Your task to perform on an android device: Set the phone to "Do not disturb". Image 0: 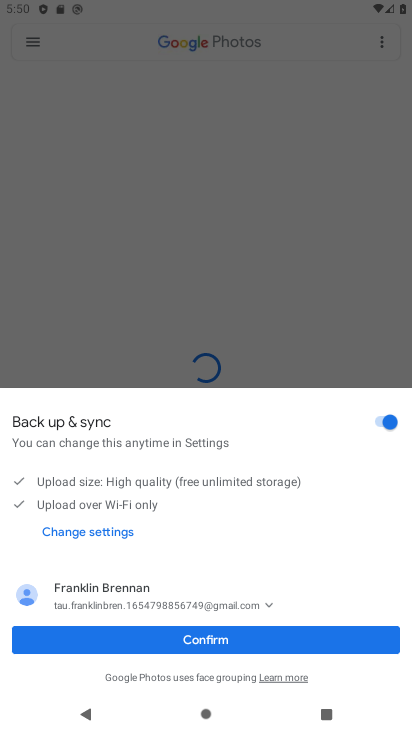
Step 0: press home button
Your task to perform on an android device: Set the phone to "Do not disturb". Image 1: 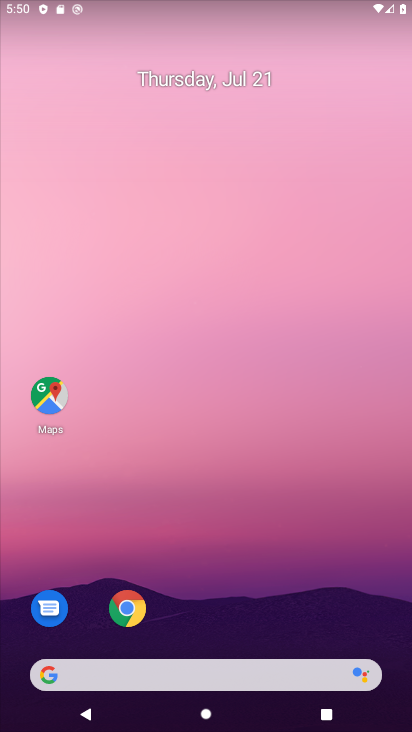
Step 1: drag from (140, 669) to (287, 75)
Your task to perform on an android device: Set the phone to "Do not disturb". Image 2: 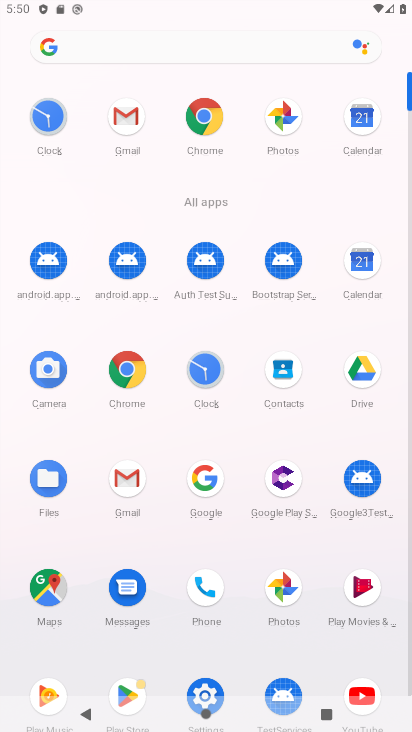
Step 2: click (206, 695)
Your task to perform on an android device: Set the phone to "Do not disturb". Image 3: 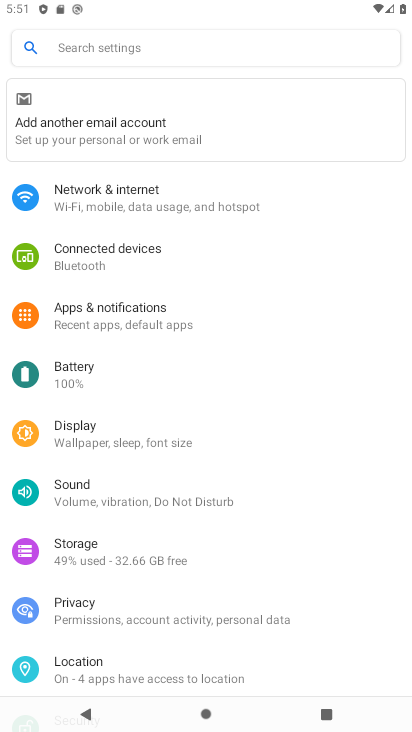
Step 3: click (136, 499)
Your task to perform on an android device: Set the phone to "Do not disturb". Image 4: 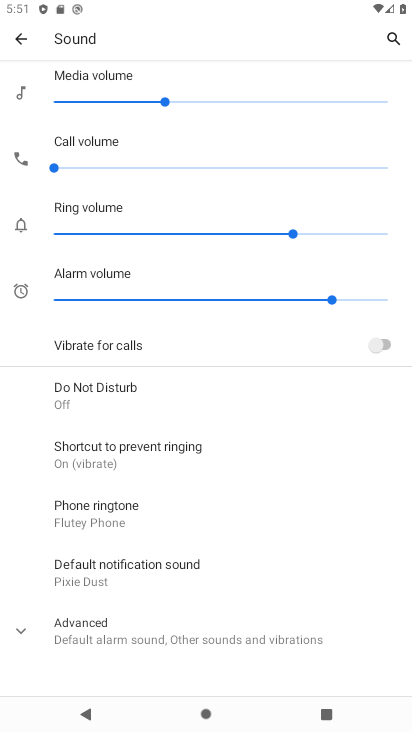
Step 4: click (87, 395)
Your task to perform on an android device: Set the phone to "Do not disturb". Image 5: 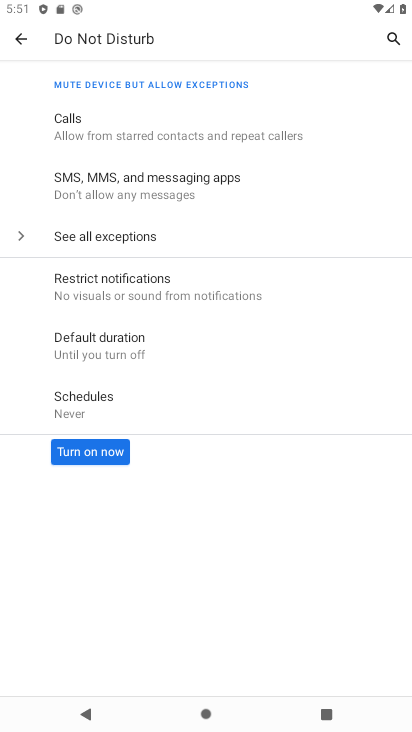
Step 5: click (90, 454)
Your task to perform on an android device: Set the phone to "Do not disturb". Image 6: 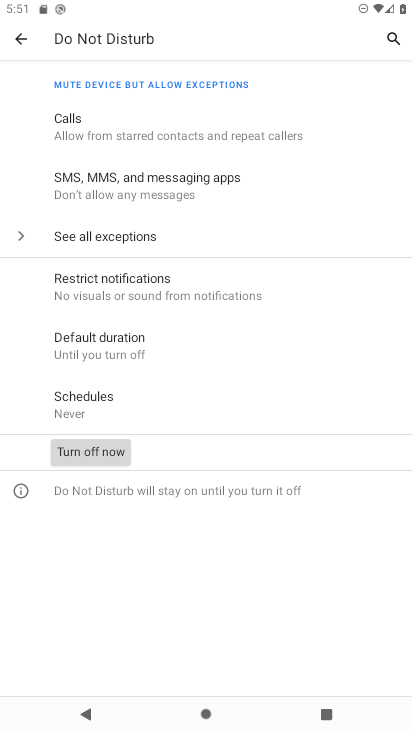
Step 6: task complete